Your task to perform on an android device: open the mobile data screen to see how much data has been used Image 0: 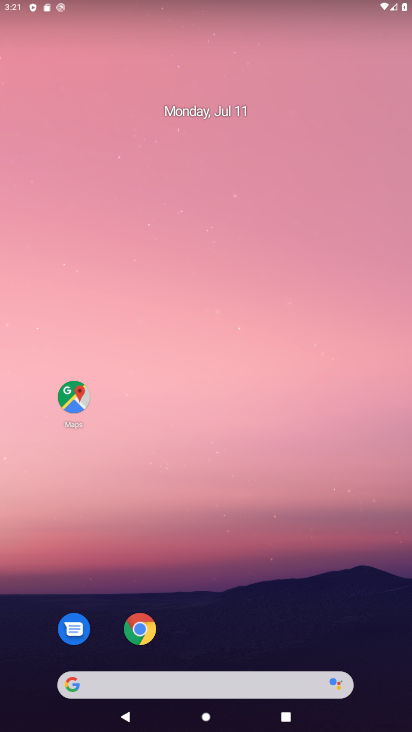
Step 0: drag from (169, 530) to (151, 119)
Your task to perform on an android device: open the mobile data screen to see how much data has been used Image 1: 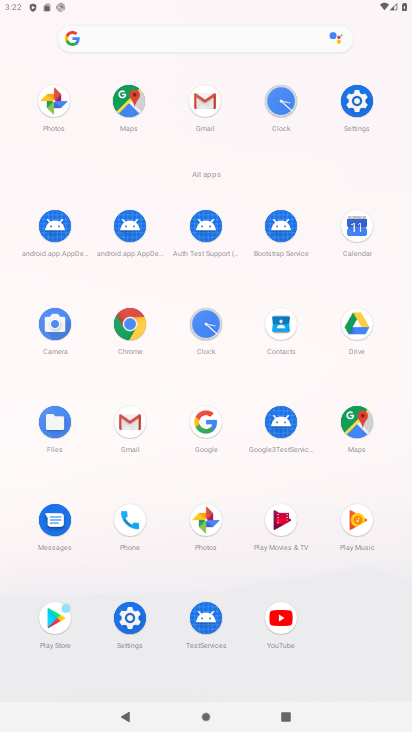
Step 1: click (139, 626)
Your task to perform on an android device: open the mobile data screen to see how much data has been used Image 2: 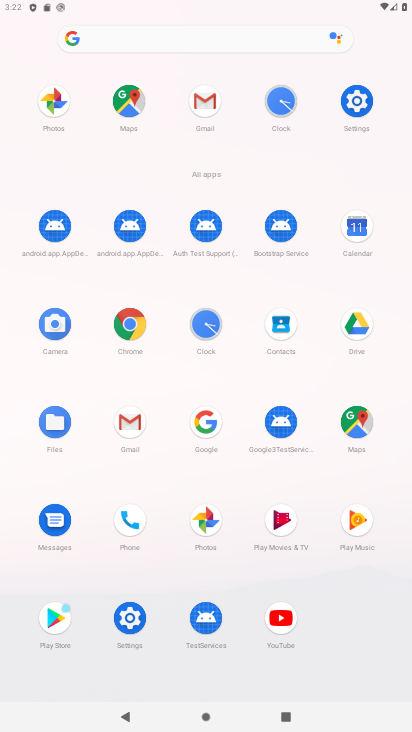
Step 2: click (130, 628)
Your task to perform on an android device: open the mobile data screen to see how much data has been used Image 3: 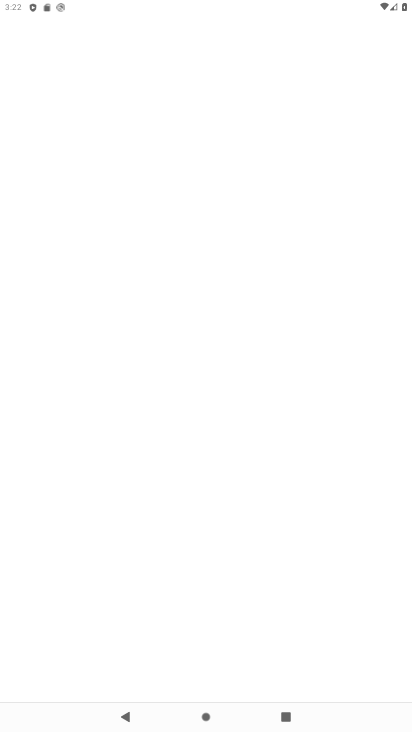
Step 3: click (129, 624)
Your task to perform on an android device: open the mobile data screen to see how much data has been used Image 4: 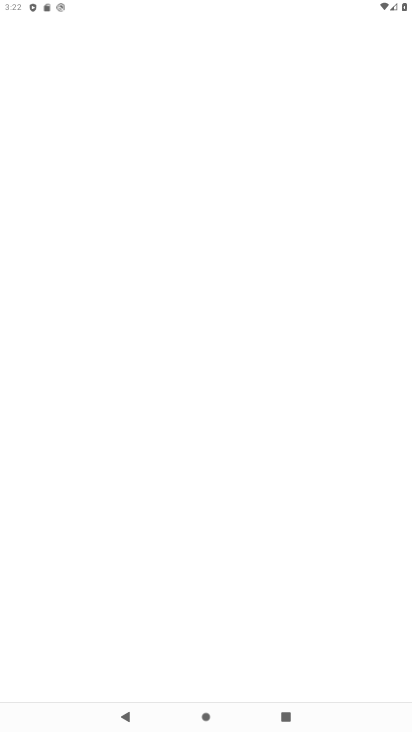
Step 4: click (121, 616)
Your task to perform on an android device: open the mobile data screen to see how much data has been used Image 5: 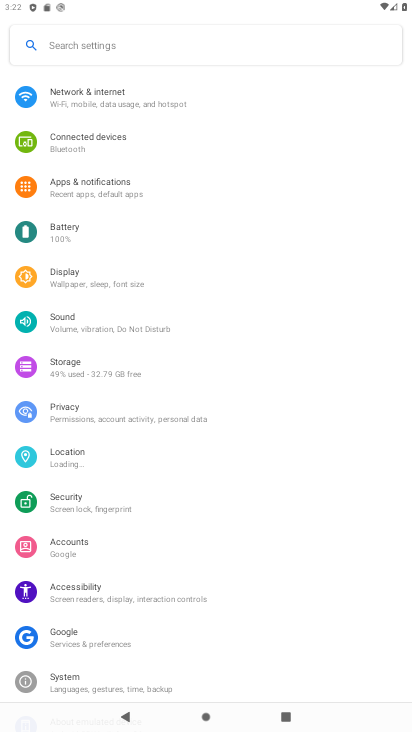
Step 5: click (352, 105)
Your task to perform on an android device: open the mobile data screen to see how much data has been used Image 6: 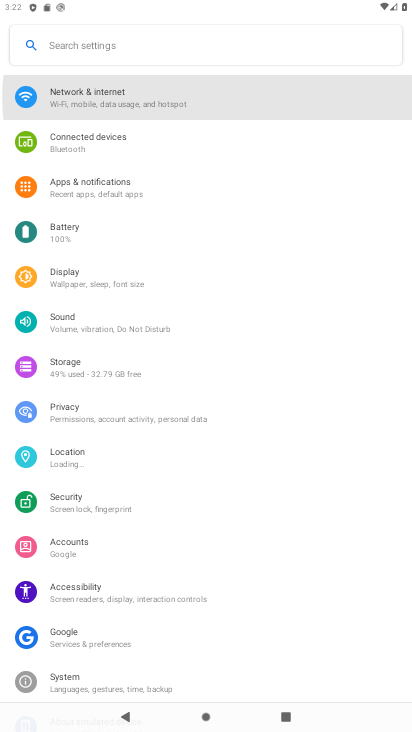
Step 6: click (358, 129)
Your task to perform on an android device: open the mobile data screen to see how much data has been used Image 7: 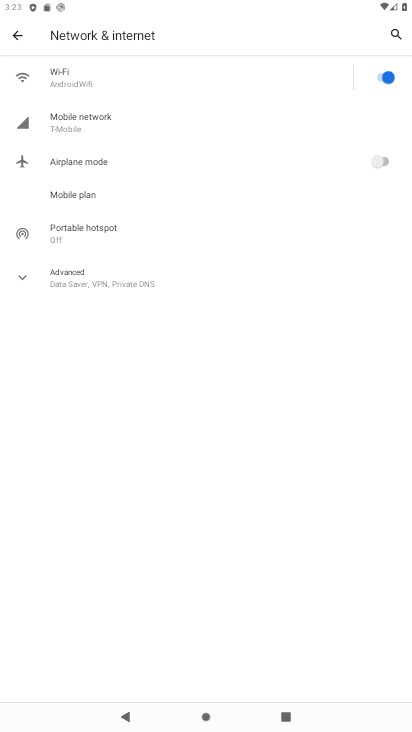
Step 7: click (77, 118)
Your task to perform on an android device: open the mobile data screen to see how much data has been used Image 8: 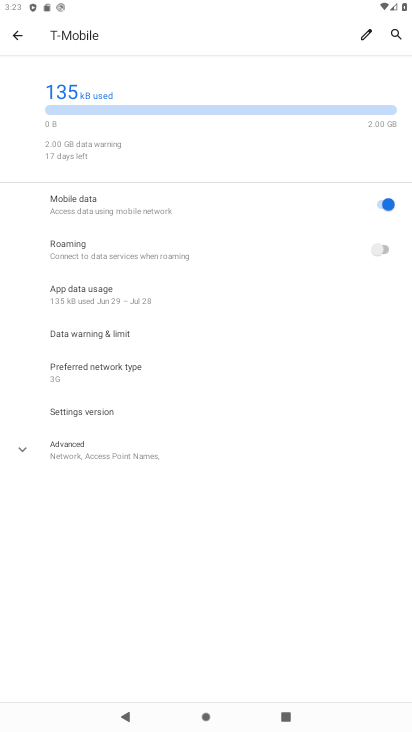
Step 8: task complete